Your task to perform on an android device: Show me the alarms in the clock app Image 0: 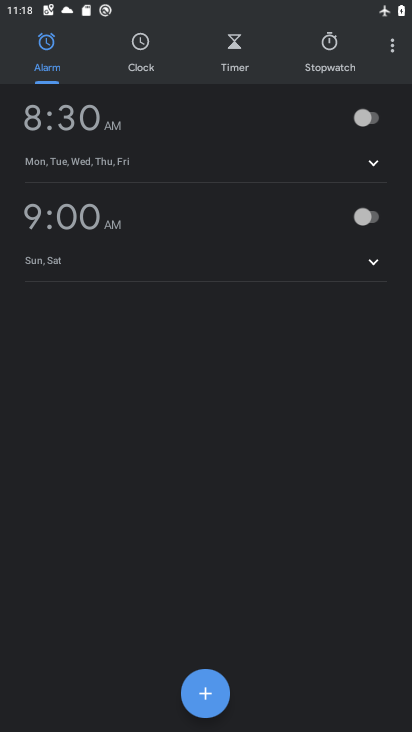
Step 0: task complete